Your task to perform on an android device: Open Chrome and go to the settings page Image 0: 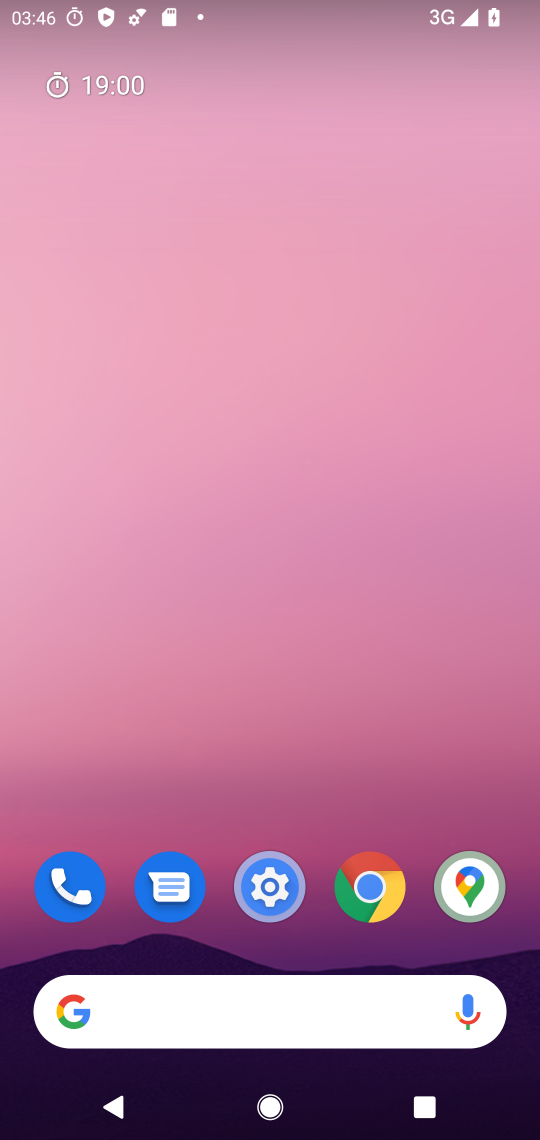
Step 0: press home button
Your task to perform on an android device: Open Chrome and go to the settings page Image 1: 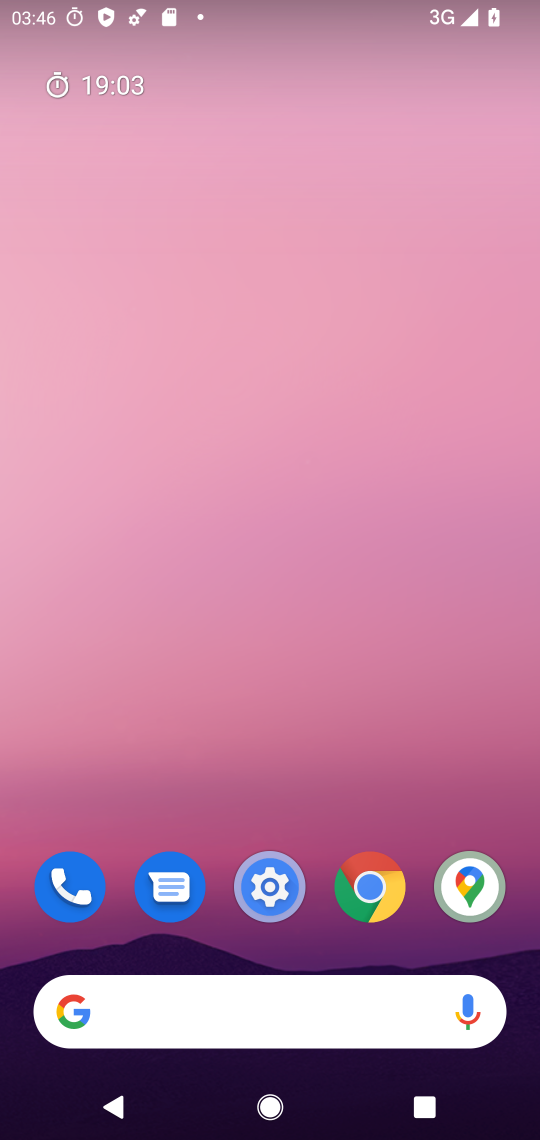
Step 1: drag from (347, 605) to (375, 203)
Your task to perform on an android device: Open Chrome and go to the settings page Image 2: 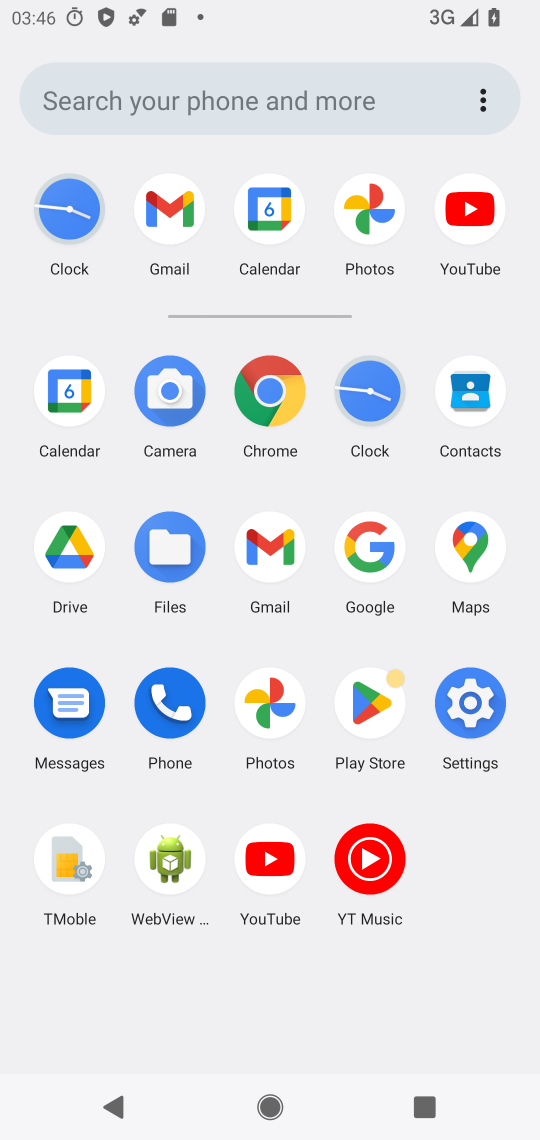
Step 2: click (276, 389)
Your task to perform on an android device: Open Chrome and go to the settings page Image 3: 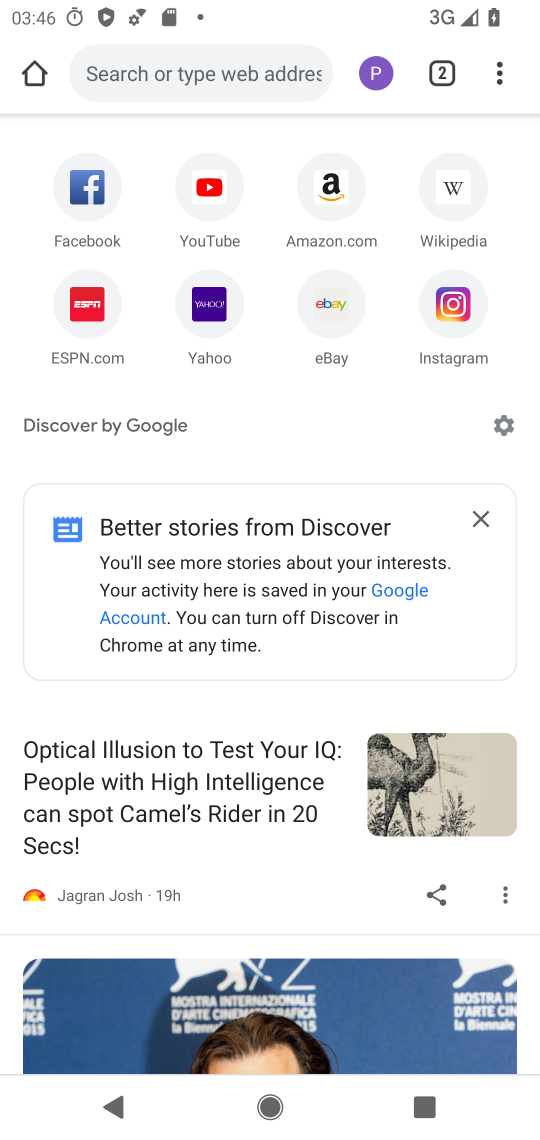
Step 3: click (498, 79)
Your task to perform on an android device: Open Chrome and go to the settings page Image 4: 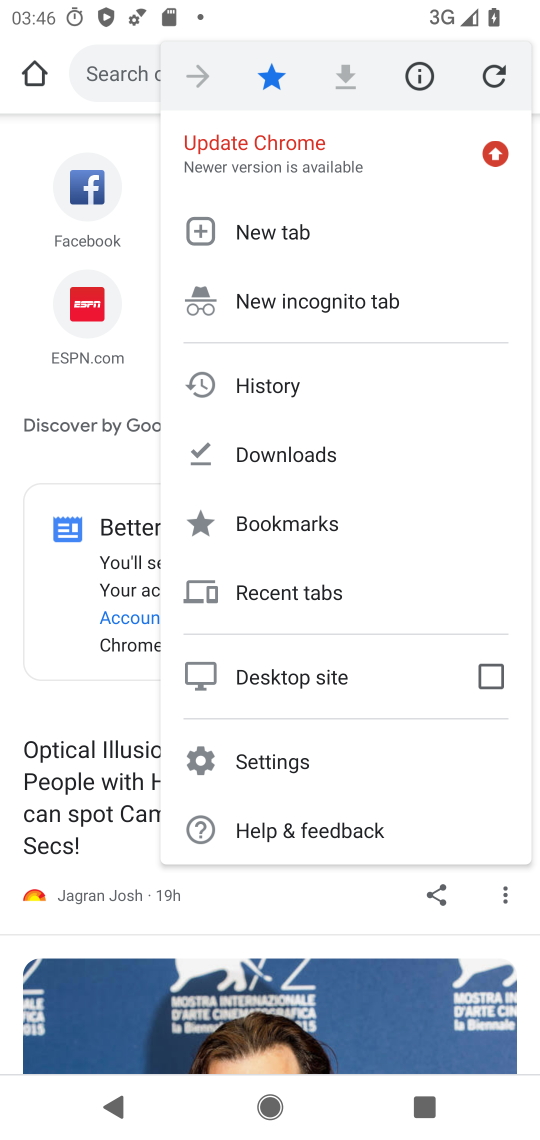
Step 4: click (302, 766)
Your task to perform on an android device: Open Chrome and go to the settings page Image 5: 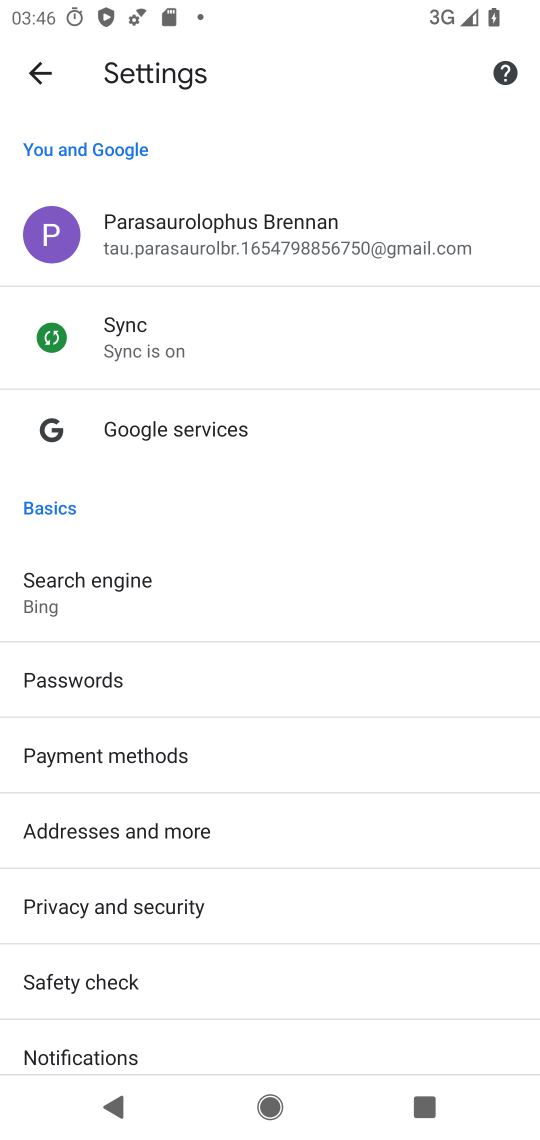
Step 5: task complete